Your task to perform on an android device: turn on the 12-hour format for clock Image 0: 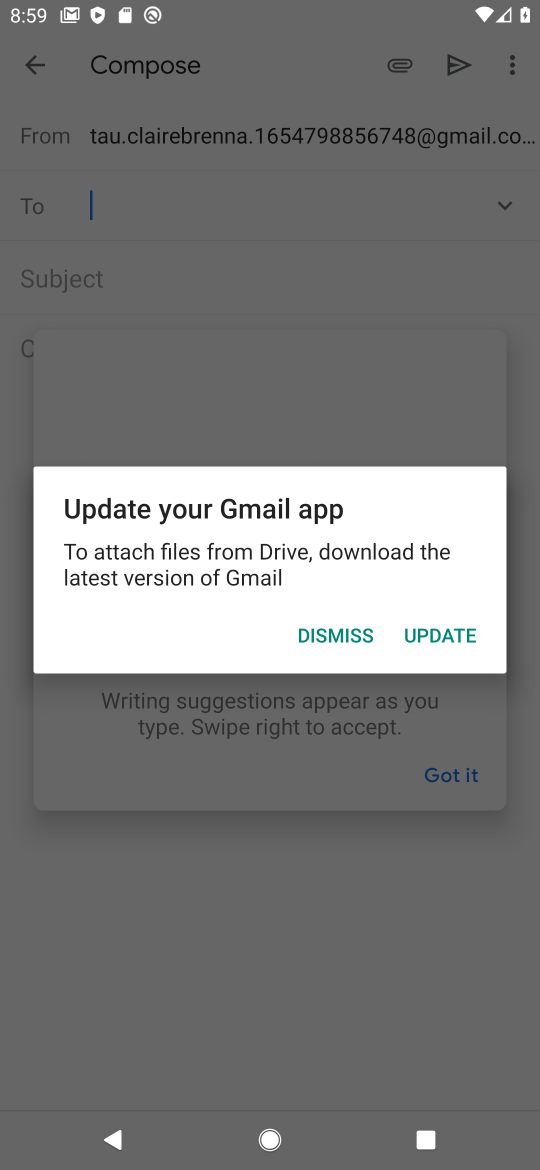
Step 0: press home button
Your task to perform on an android device: turn on the 12-hour format for clock Image 1: 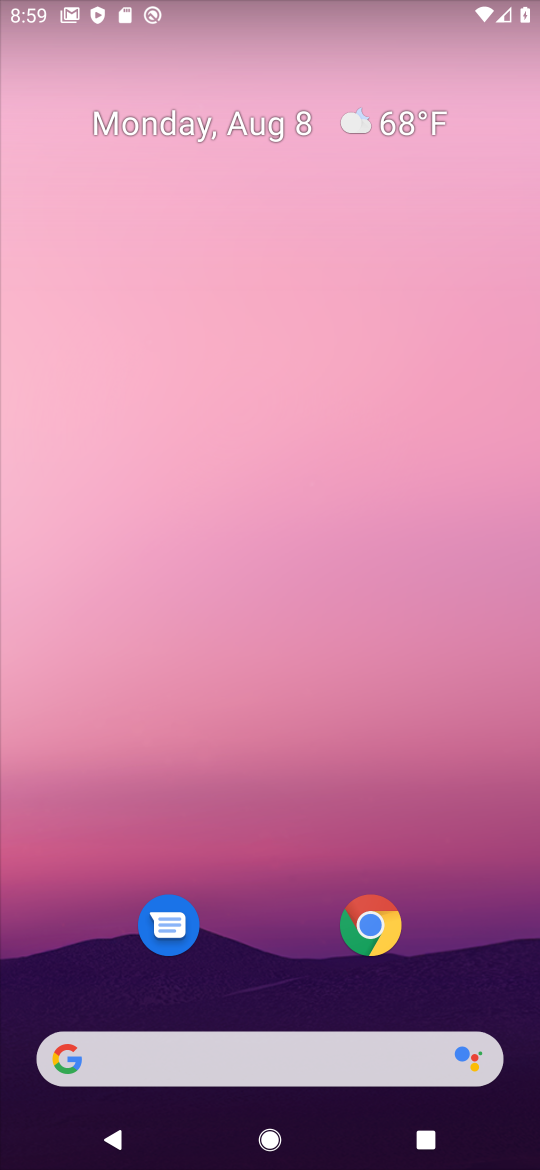
Step 1: drag from (208, 970) to (167, 336)
Your task to perform on an android device: turn on the 12-hour format for clock Image 2: 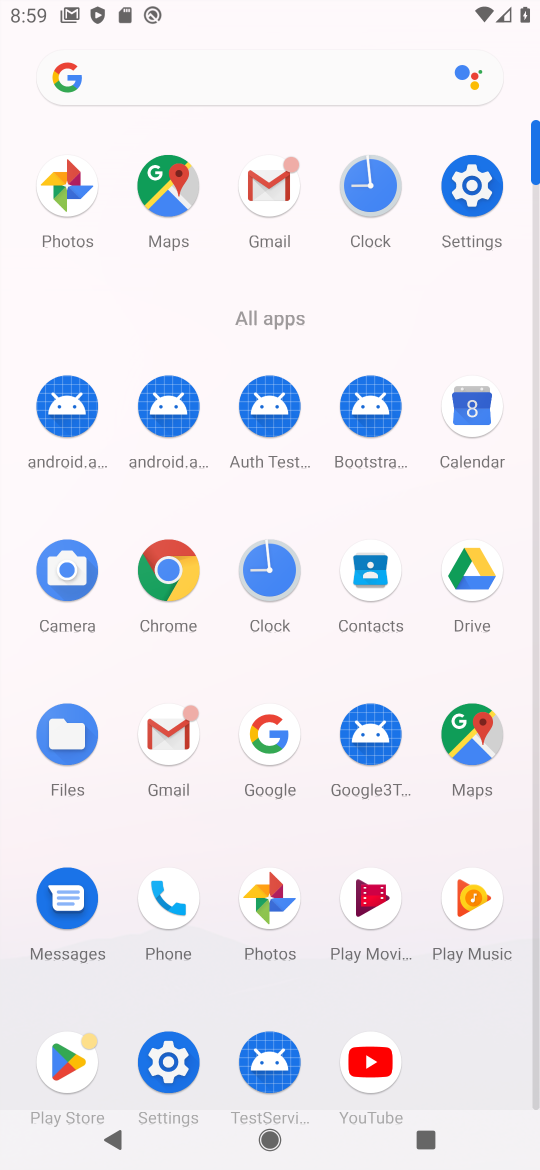
Step 2: click (275, 568)
Your task to perform on an android device: turn on the 12-hour format for clock Image 3: 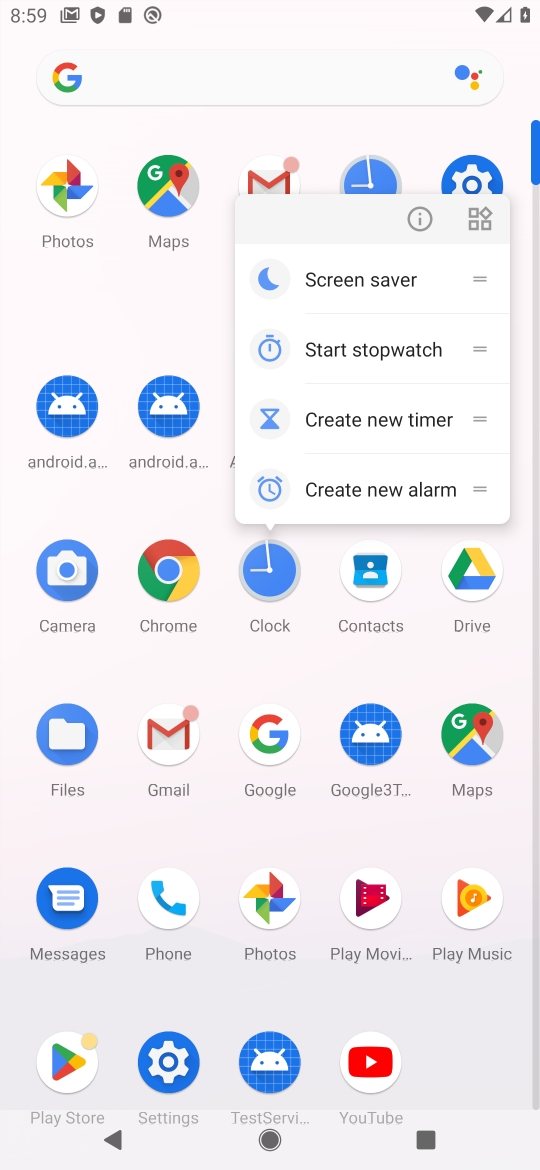
Step 3: click (275, 568)
Your task to perform on an android device: turn on the 12-hour format for clock Image 4: 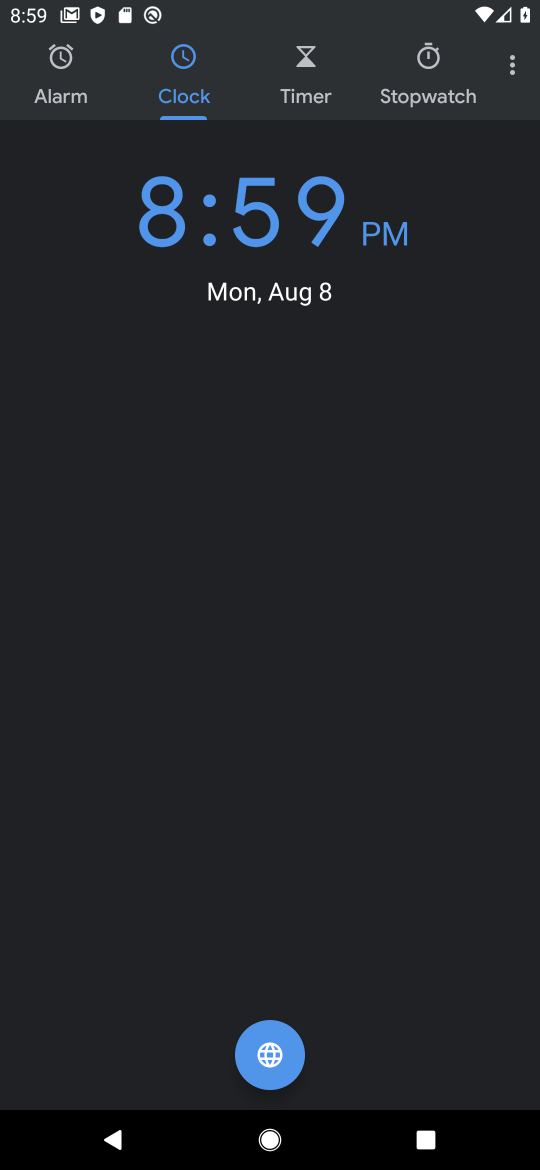
Step 4: click (514, 69)
Your task to perform on an android device: turn on the 12-hour format for clock Image 5: 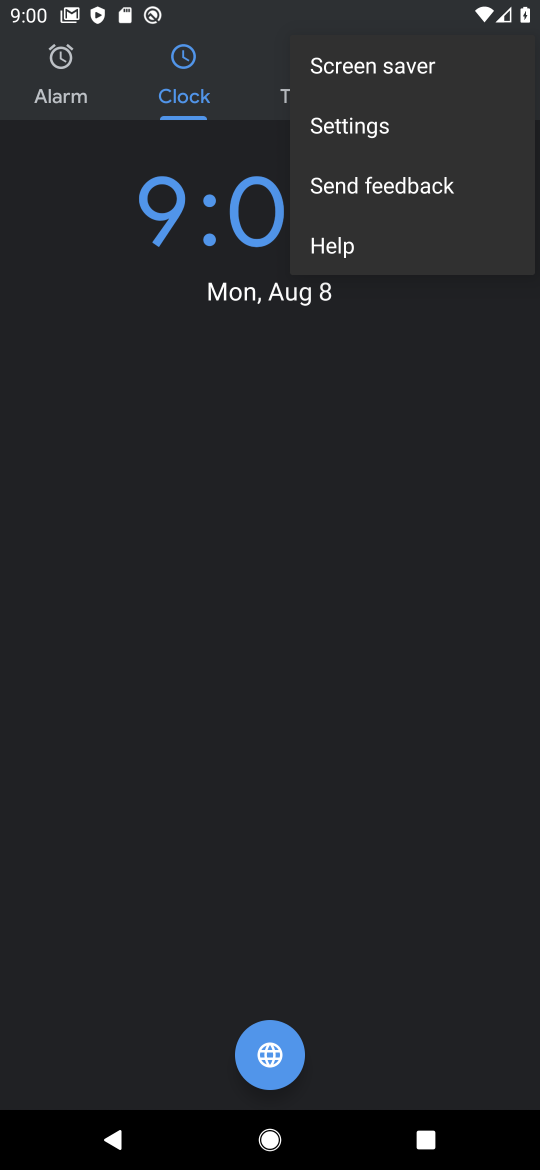
Step 5: click (385, 120)
Your task to perform on an android device: turn on the 12-hour format for clock Image 6: 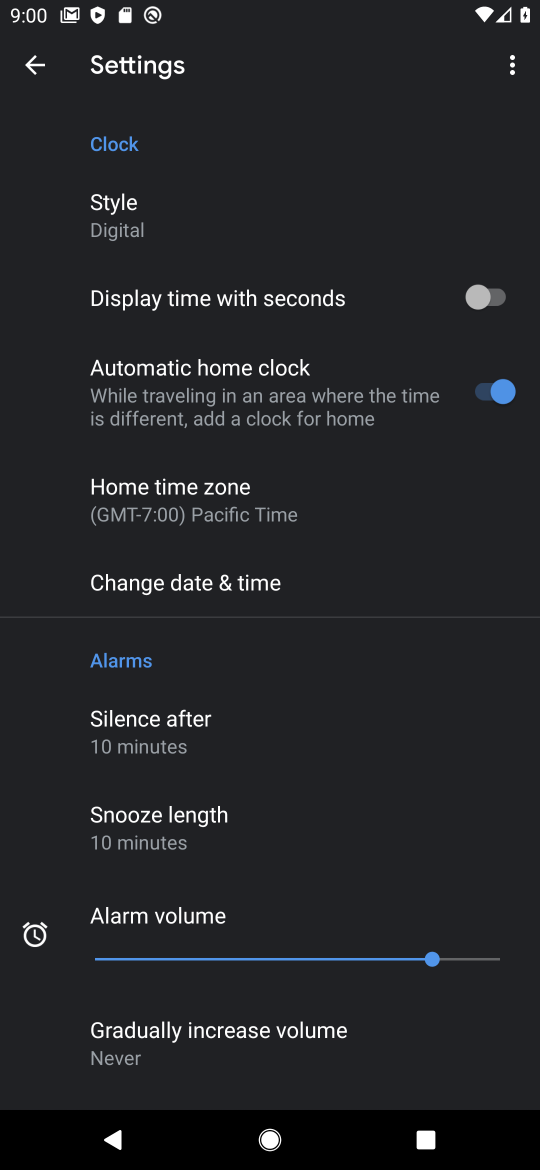
Step 6: click (178, 603)
Your task to perform on an android device: turn on the 12-hour format for clock Image 7: 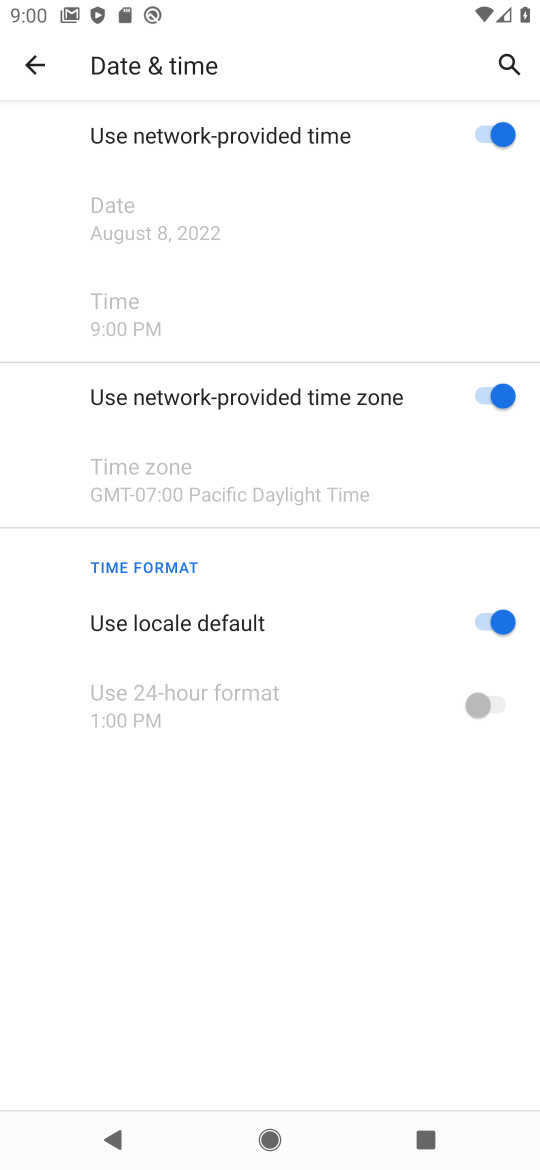
Step 7: task complete